Your task to perform on an android device: Find coffee shops on Maps Image 0: 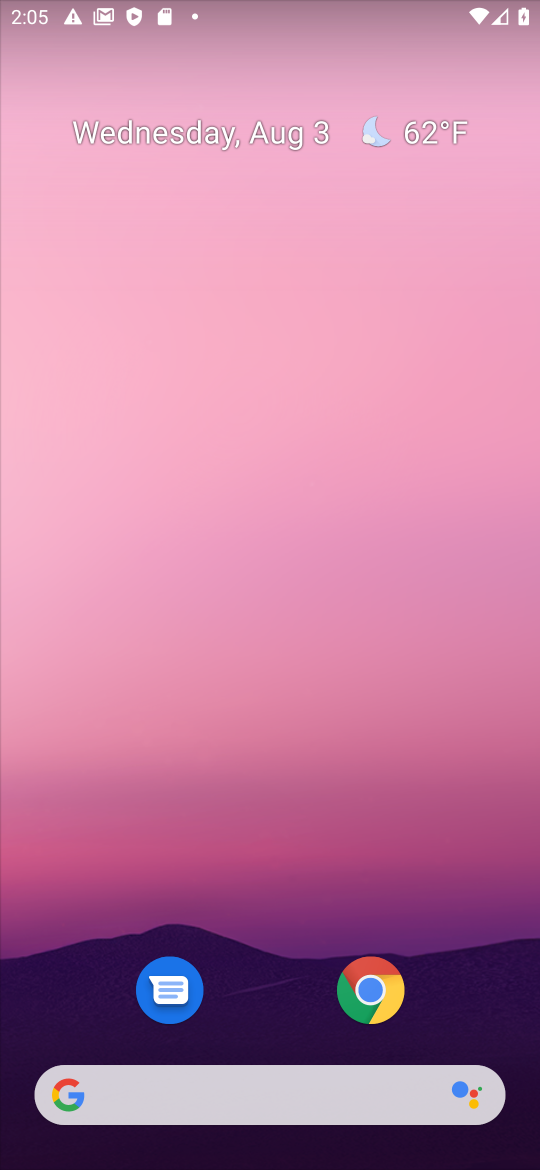
Step 0: drag from (312, 1065) to (248, 284)
Your task to perform on an android device: Find coffee shops on Maps Image 1: 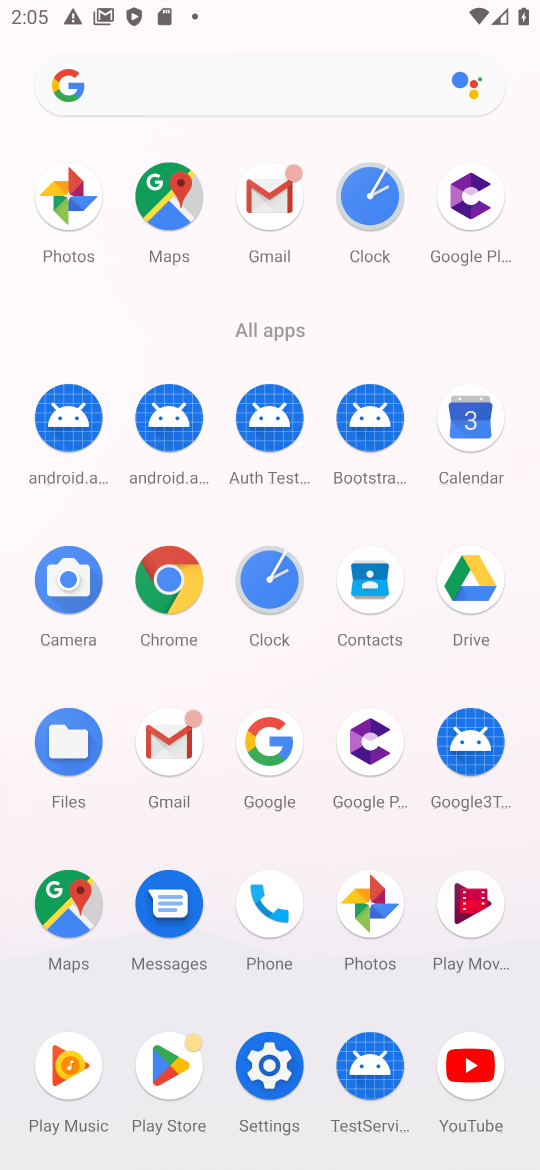
Step 1: click (57, 912)
Your task to perform on an android device: Find coffee shops on Maps Image 2: 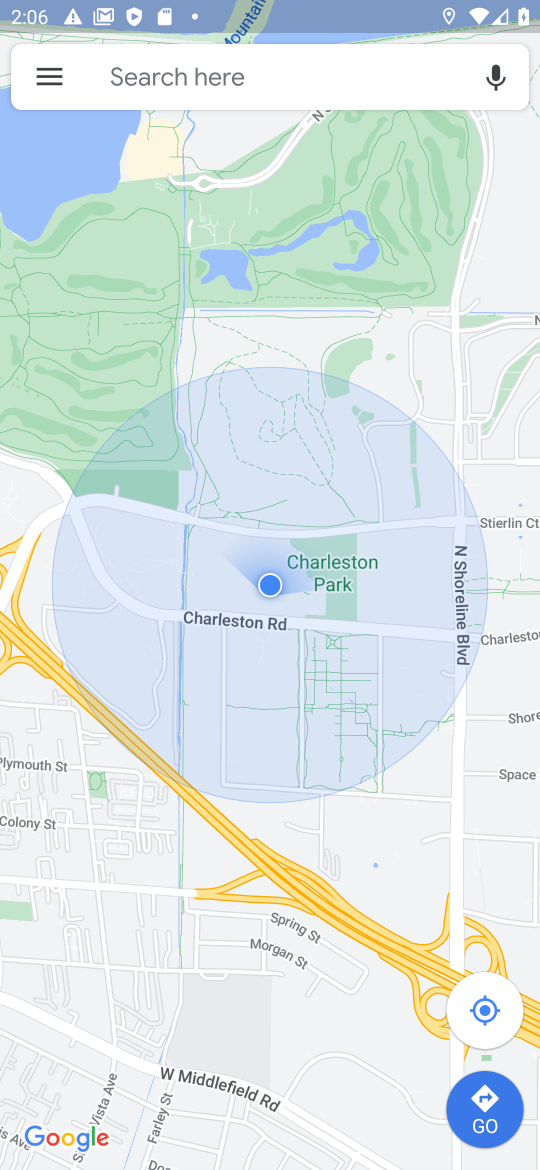
Step 2: click (249, 85)
Your task to perform on an android device: Find coffee shops on Maps Image 3: 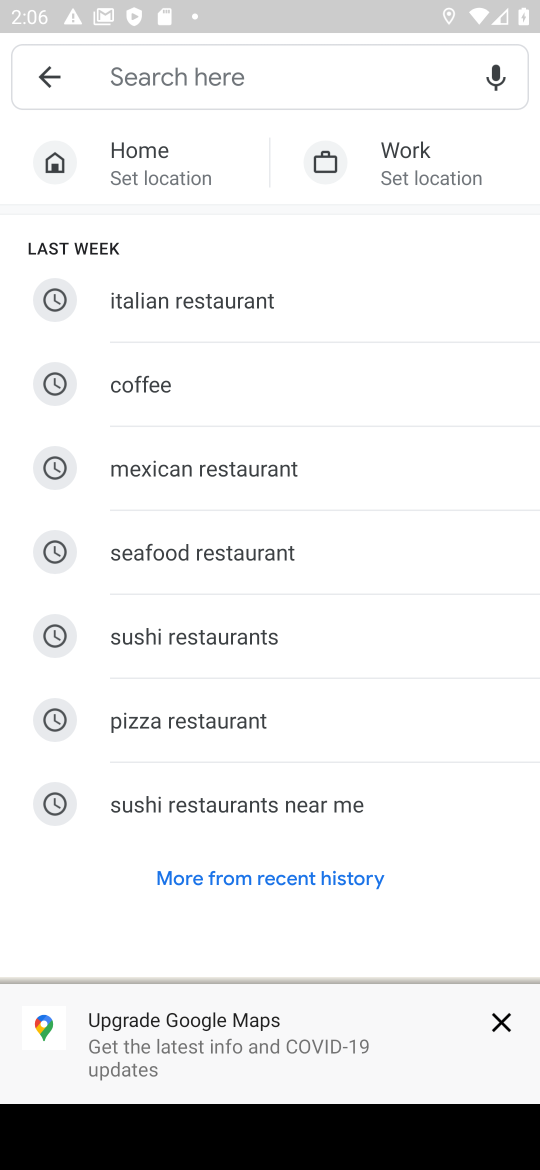
Step 3: click (155, 382)
Your task to perform on an android device: Find coffee shops on Maps Image 4: 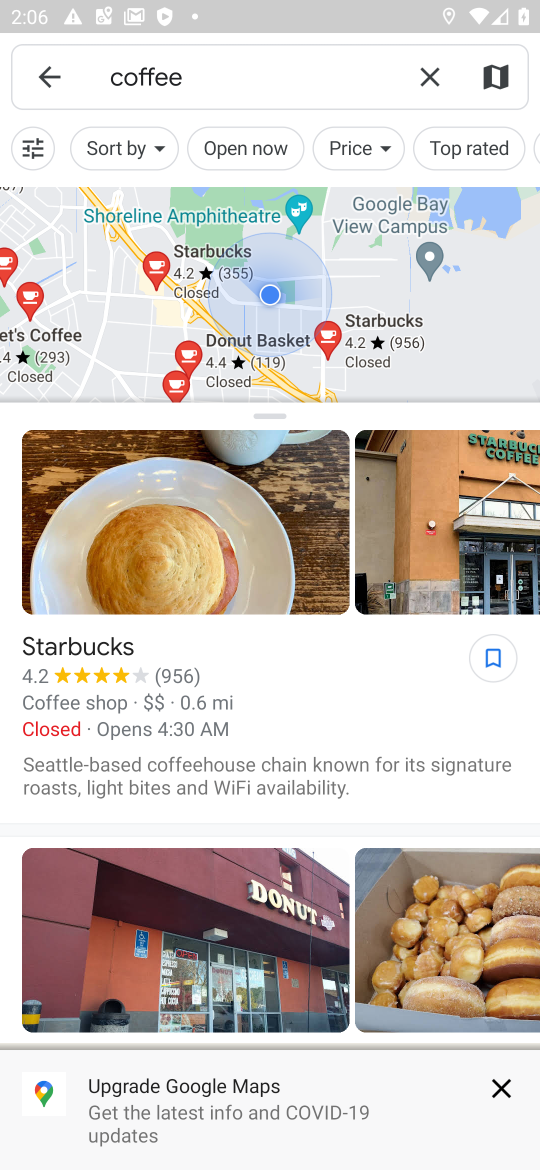
Step 4: task complete